Your task to perform on an android device: What is the news today? Image 0: 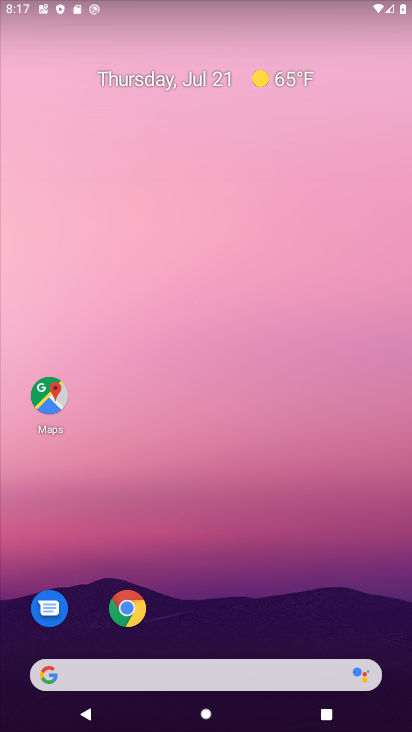
Step 0: drag from (199, 676) to (228, 222)
Your task to perform on an android device: What is the news today? Image 1: 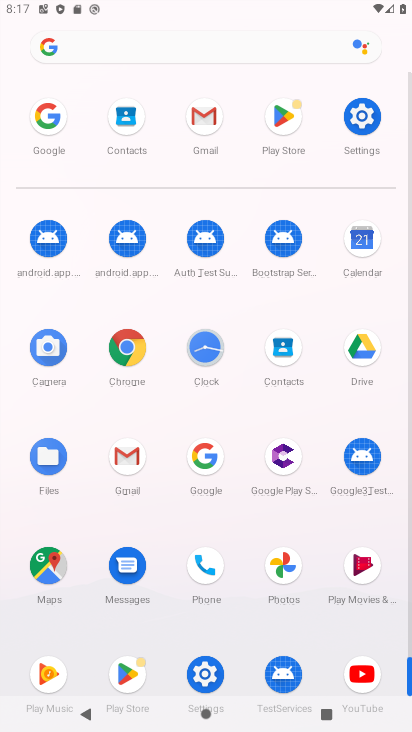
Step 1: click (203, 453)
Your task to perform on an android device: What is the news today? Image 2: 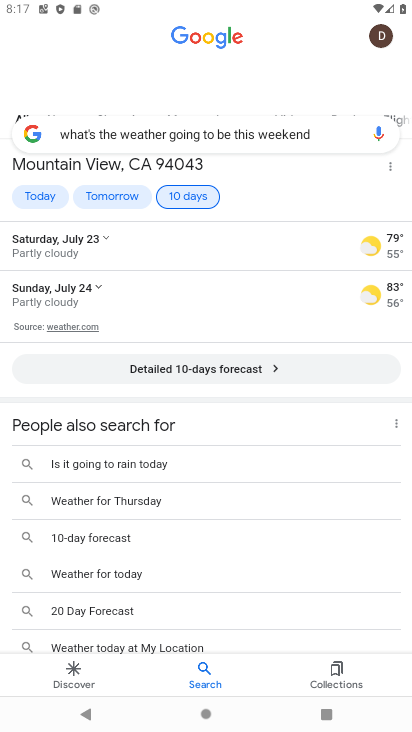
Step 2: click (319, 139)
Your task to perform on an android device: What is the news today? Image 3: 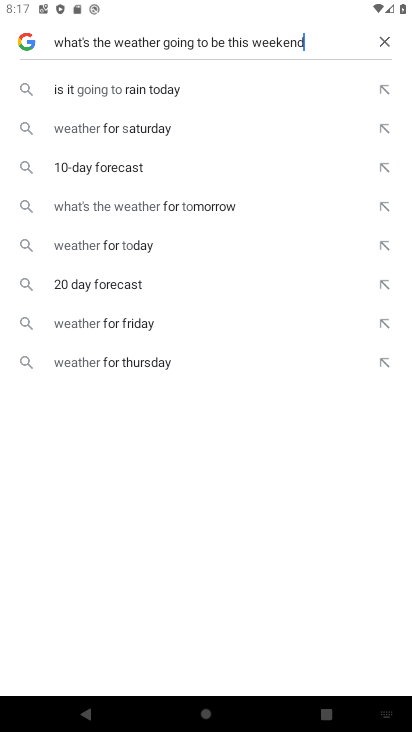
Step 3: click (386, 41)
Your task to perform on an android device: What is the news today? Image 4: 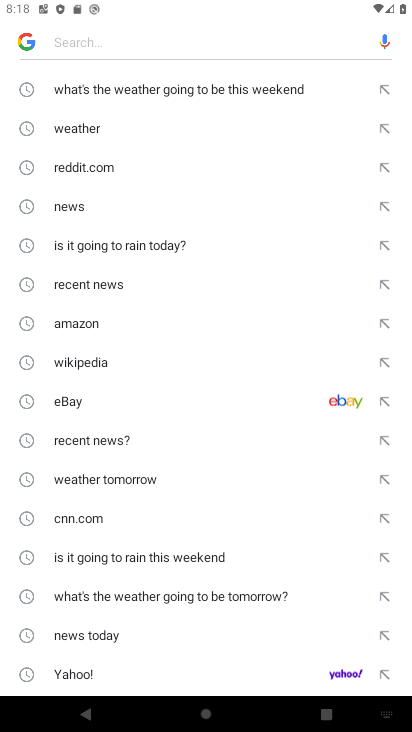
Step 4: click (102, 634)
Your task to perform on an android device: What is the news today? Image 5: 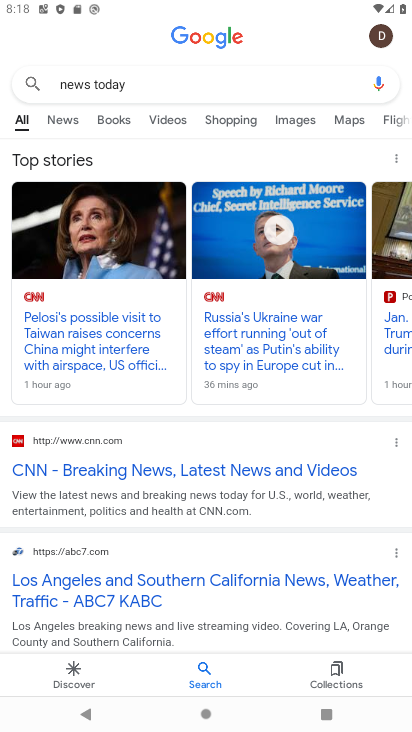
Step 5: task complete